Your task to perform on an android device: Open settings Image 0: 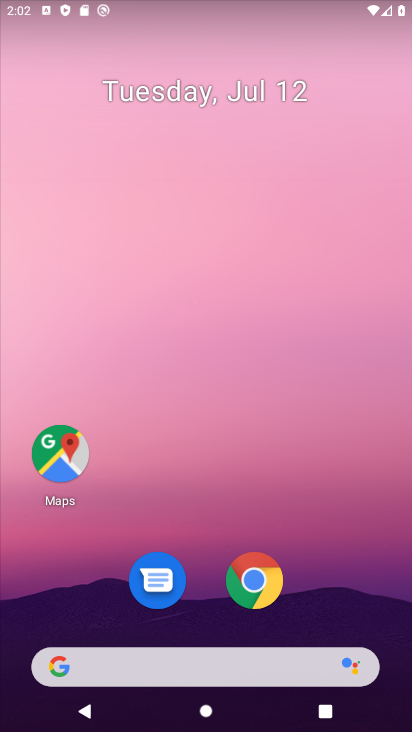
Step 0: drag from (138, 11) to (174, 575)
Your task to perform on an android device: Open settings Image 1: 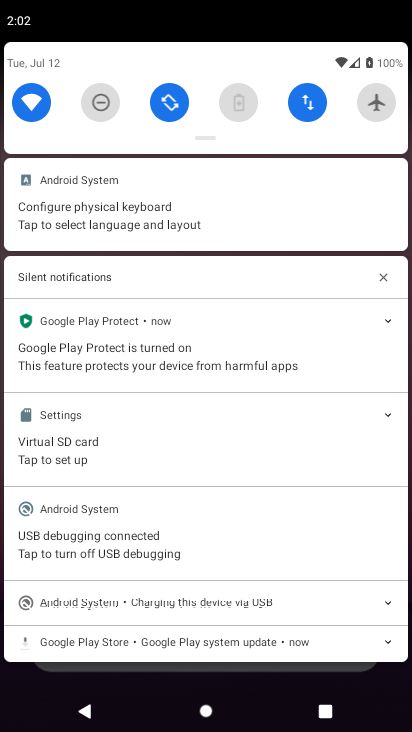
Step 1: drag from (254, 63) to (241, 646)
Your task to perform on an android device: Open settings Image 2: 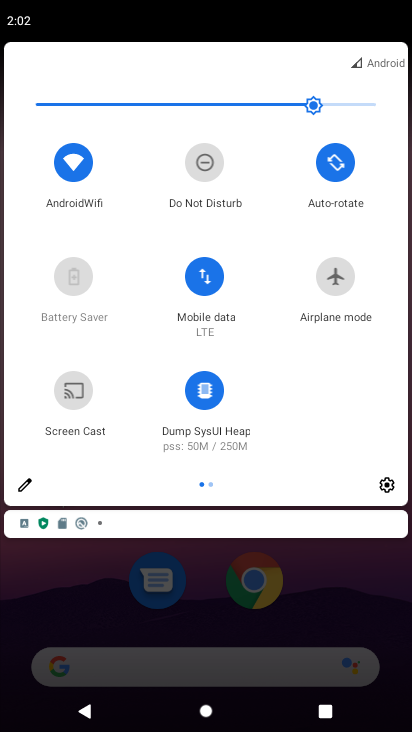
Step 2: click (396, 496)
Your task to perform on an android device: Open settings Image 3: 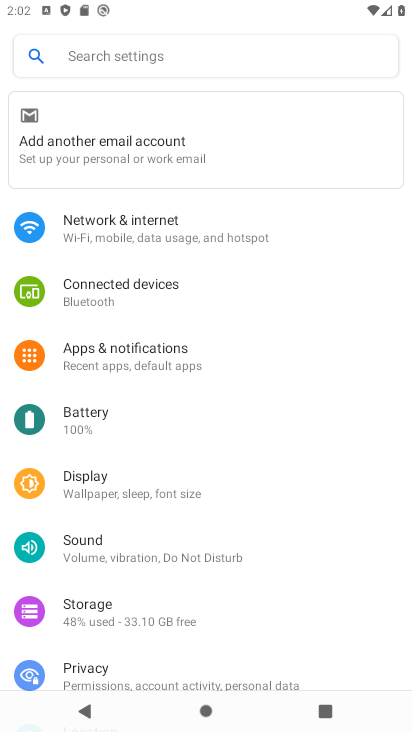
Step 3: task complete